Your task to perform on an android device: Show me recent news Image 0: 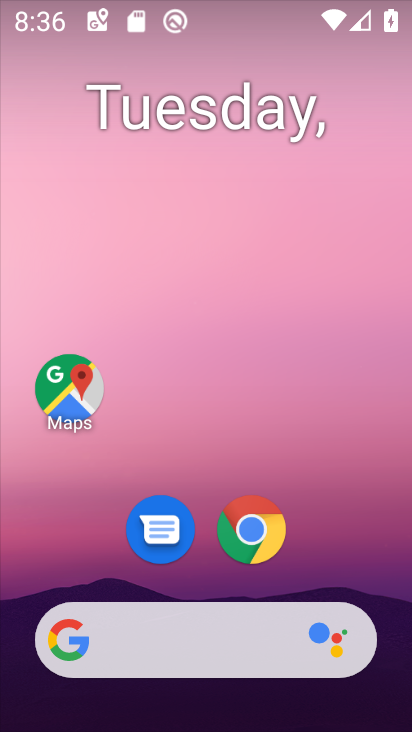
Step 0: drag from (220, 566) to (197, 4)
Your task to perform on an android device: Show me recent news Image 1: 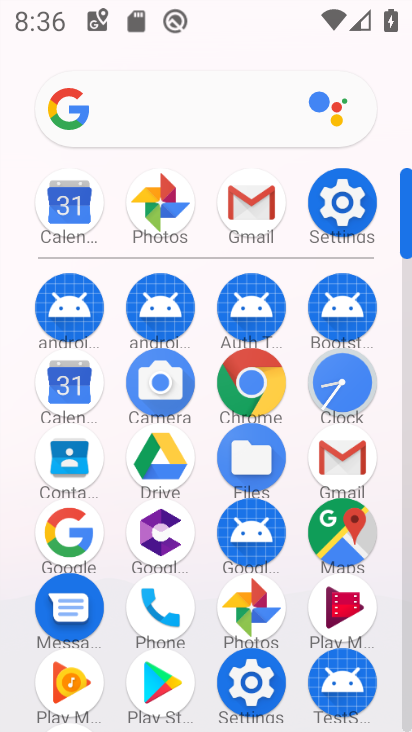
Step 1: click (159, 113)
Your task to perform on an android device: Show me recent news Image 2: 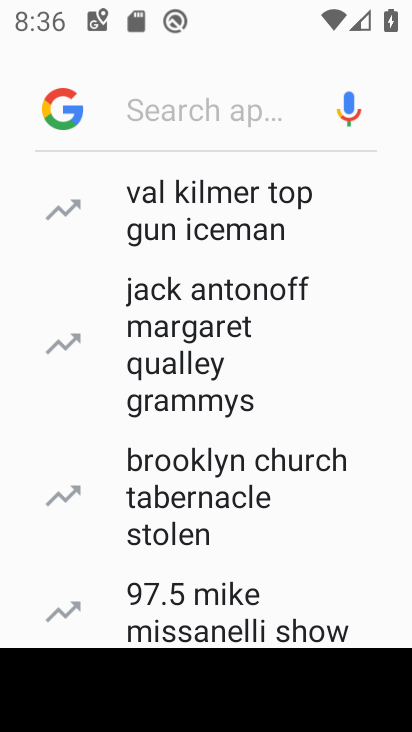
Step 2: type "recent news"
Your task to perform on an android device: Show me recent news Image 3: 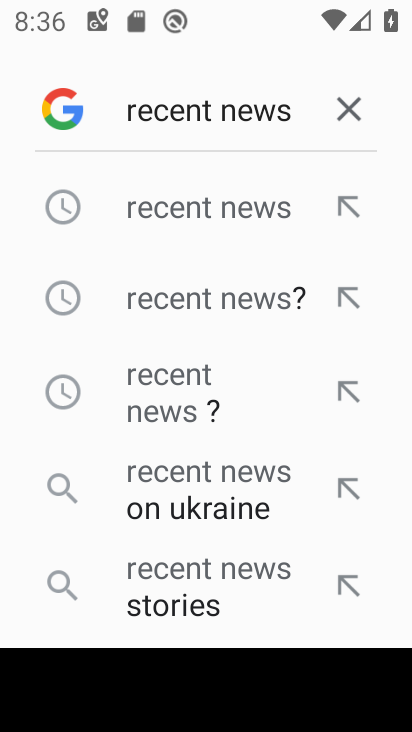
Step 3: click (180, 199)
Your task to perform on an android device: Show me recent news Image 4: 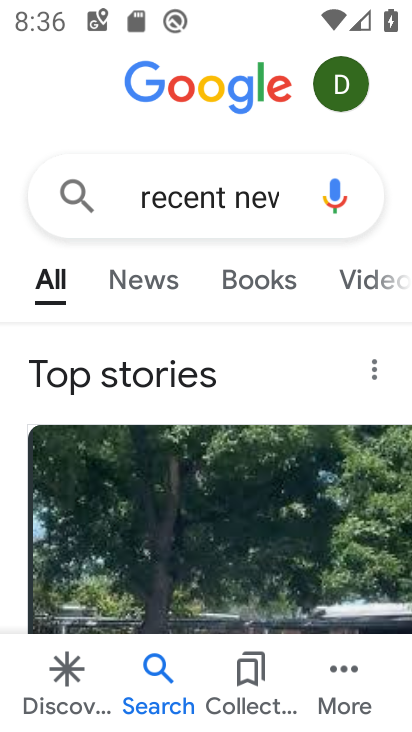
Step 4: task complete